Your task to perform on an android device: remove spam from my inbox in the gmail app Image 0: 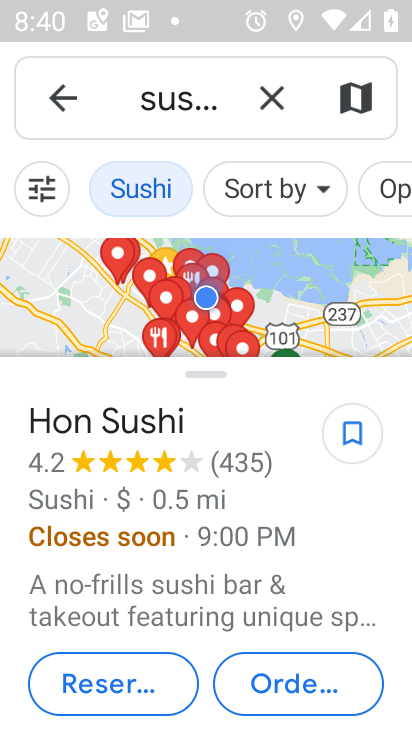
Step 0: press home button
Your task to perform on an android device: remove spam from my inbox in the gmail app Image 1: 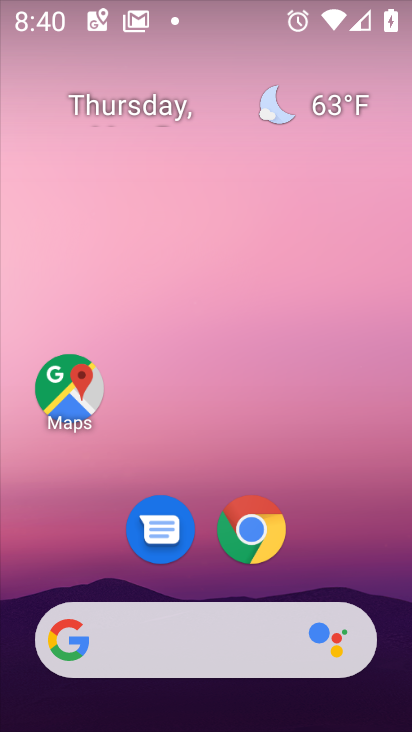
Step 1: drag from (194, 565) to (208, 158)
Your task to perform on an android device: remove spam from my inbox in the gmail app Image 2: 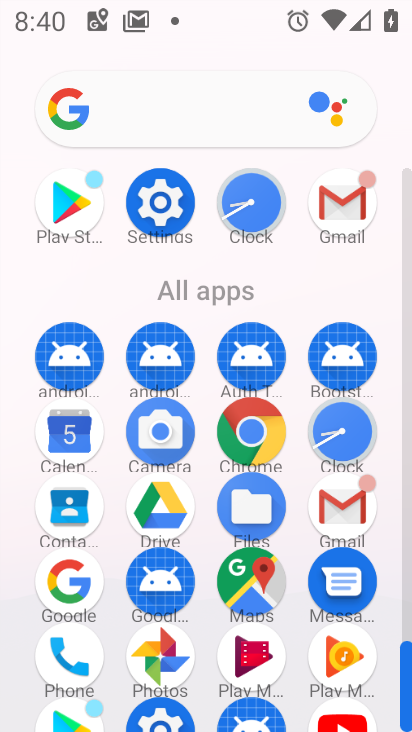
Step 2: click (342, 220)
Your task to perform on an android device: remove spam from my inbox in the gmail app Image 3: 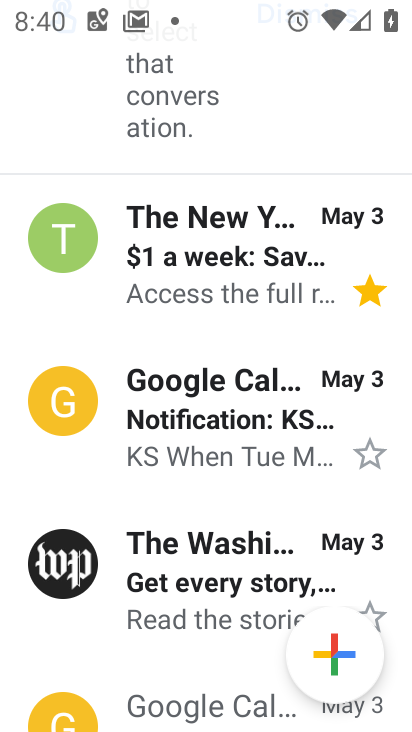
Step 3: drag from (125, 131) to (125, 537)
Your task to perform on an android device: remove spam from my inbox in the gmail app Image 4: 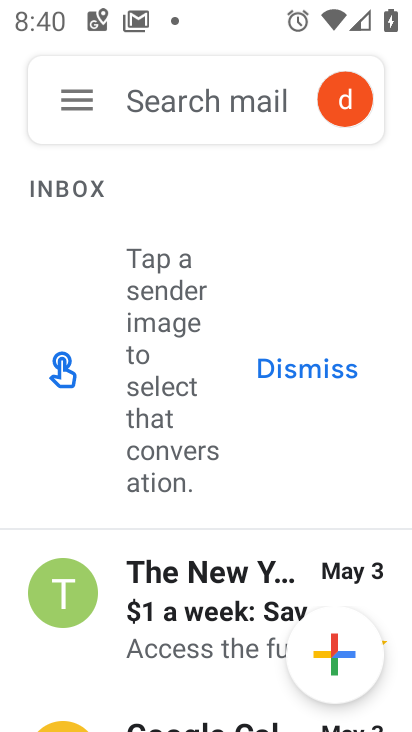
Step 4: click (65, 100)
Your task to perform on an android device: remove spam from my inbox in the gmail app Image 5: 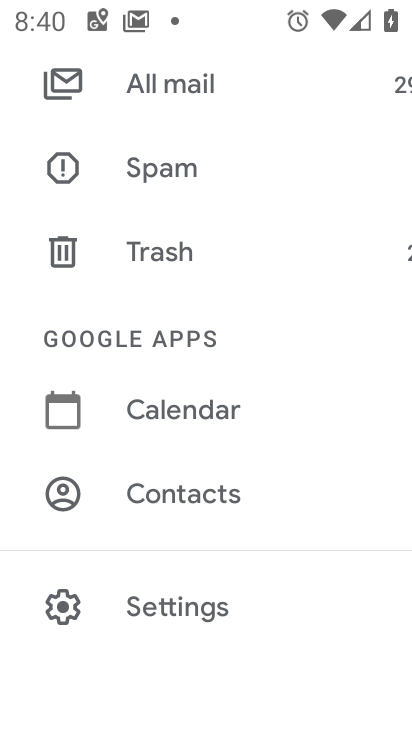
Step 5: click (162, 179)
Your task to perform on an android device: remove spam from my inbox in the gmail app Image 6: 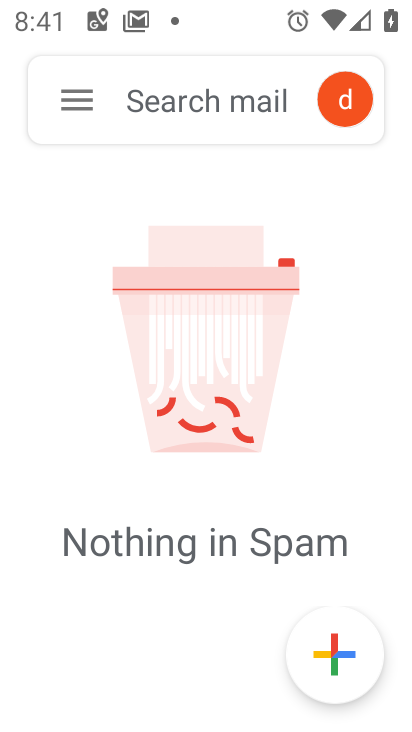
Step 6: task complete